Your task to perform on an android device: move a message to another label in the gmail app Image 0: 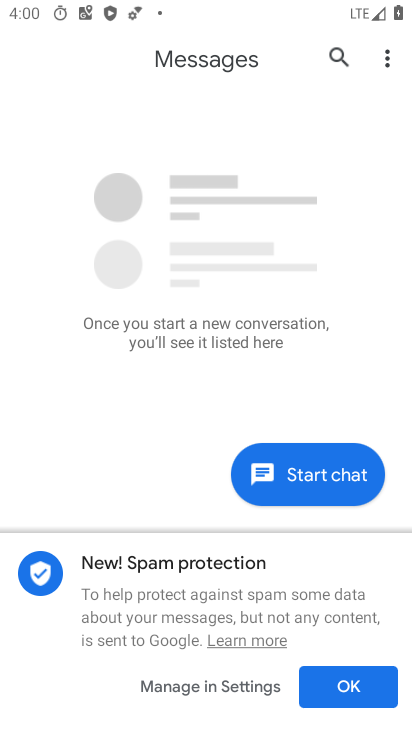
Step 0: press home button
Your task to perform on an android device: move a message to another label in the gmail app Image 1: 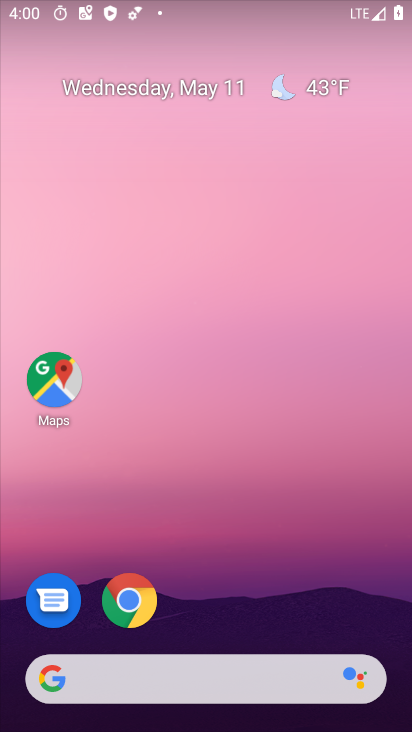
Step 1: drag from (327, 618) to (347, 12)
Your task to perform on an android device: move a message to another label in the gmail app Image 2: 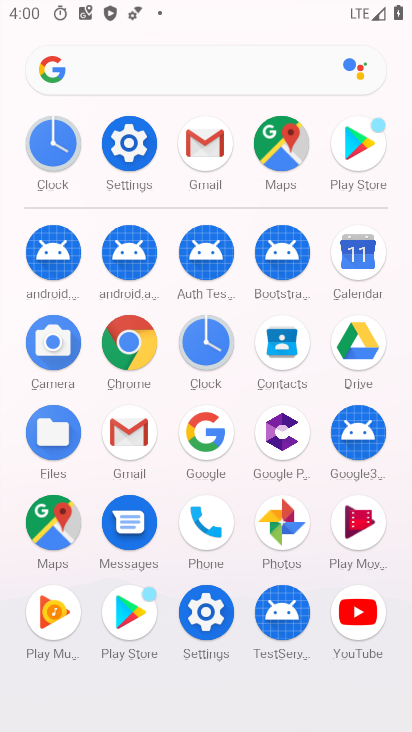
Step 2: click (213, 157)
Your task to perform on an android device: move a message to another label in the gmail app Image 3: 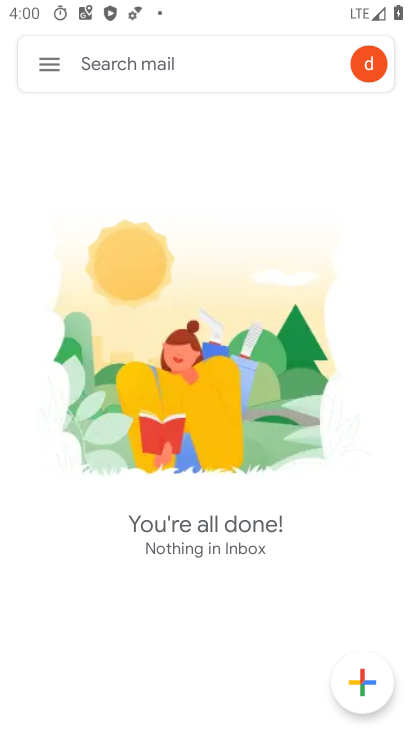
Step 3: click (53, 69)
Your task to perform on an android device: move a message to another label in the gmail app Image 4: 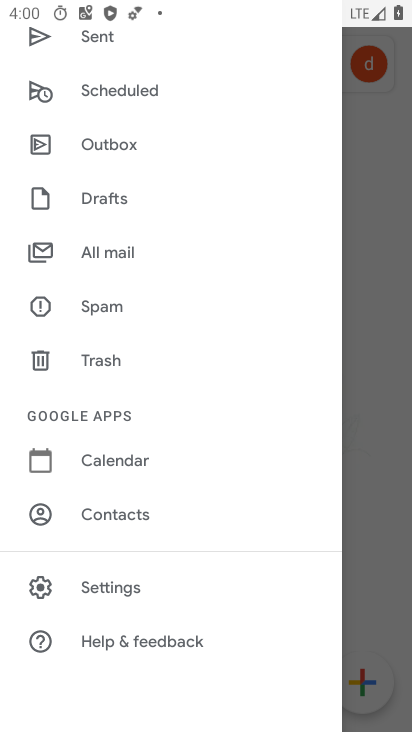
Step 4: click (122, 249)
Your task to perform on an android device: move a message to another label in the gmail app Image 5: 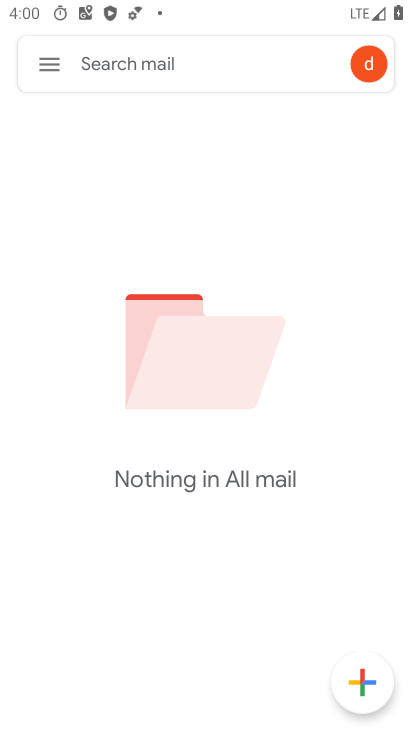
Step 5: task complete